Your task to perform on an android device: Search for Italian restaurants on Maps Image 0: 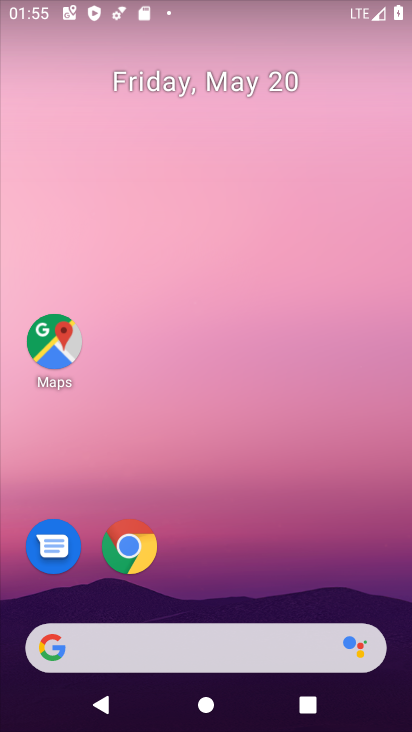
Step 0: click (62, 351)
Your task to perform on an android device: Search for Italian restaurants on Maps Image 1: 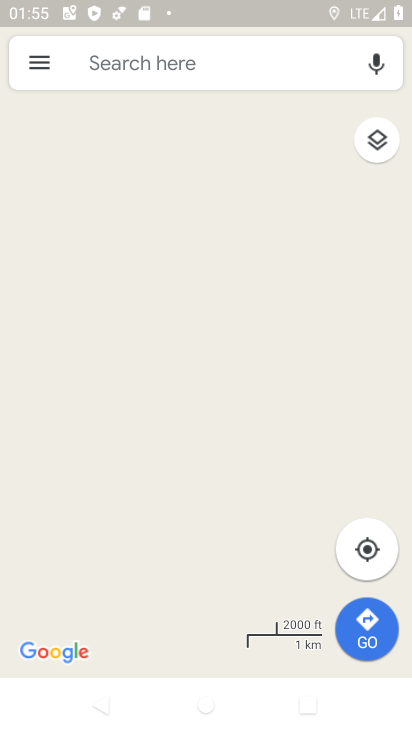
Step 1: click (207, 46)
Your task to perform on an android device: Search for Italian restaurants on Maps Image 2: 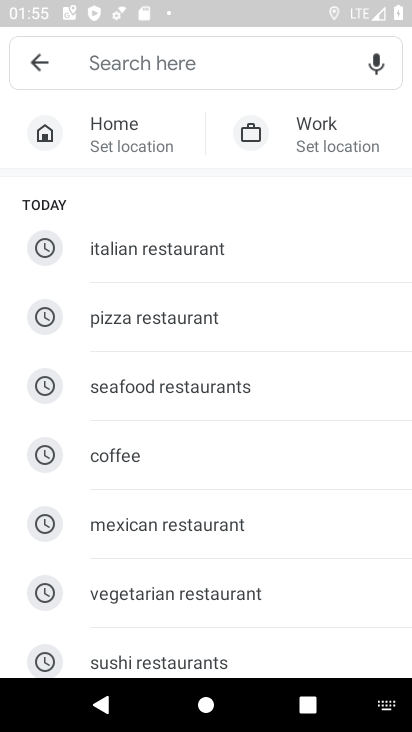
Step 2: click (163, 247)
Your task to perform on an android device: Search for Italian restaurants on Maps Image 3: 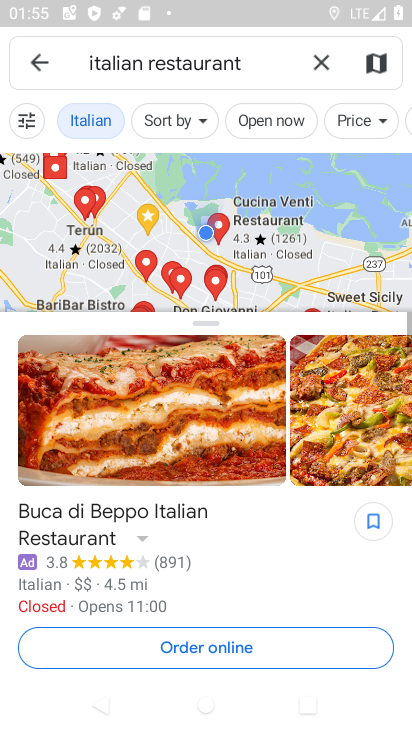
Step 3: task complete